Your task to perform on an android device: Open Wikipedia Image 0: 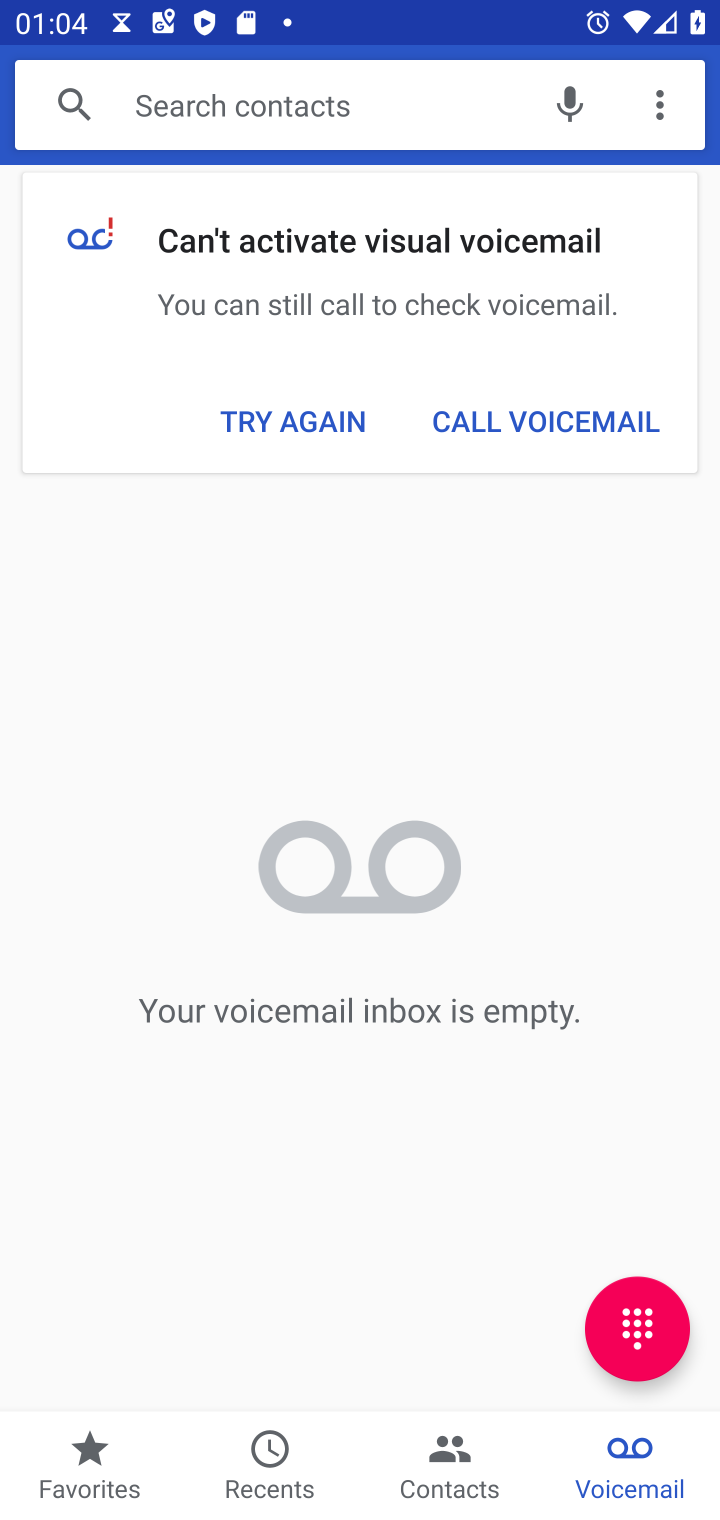
Step 0: press home button
Your task to perform on an android device: Open Wikipedia Image 1: 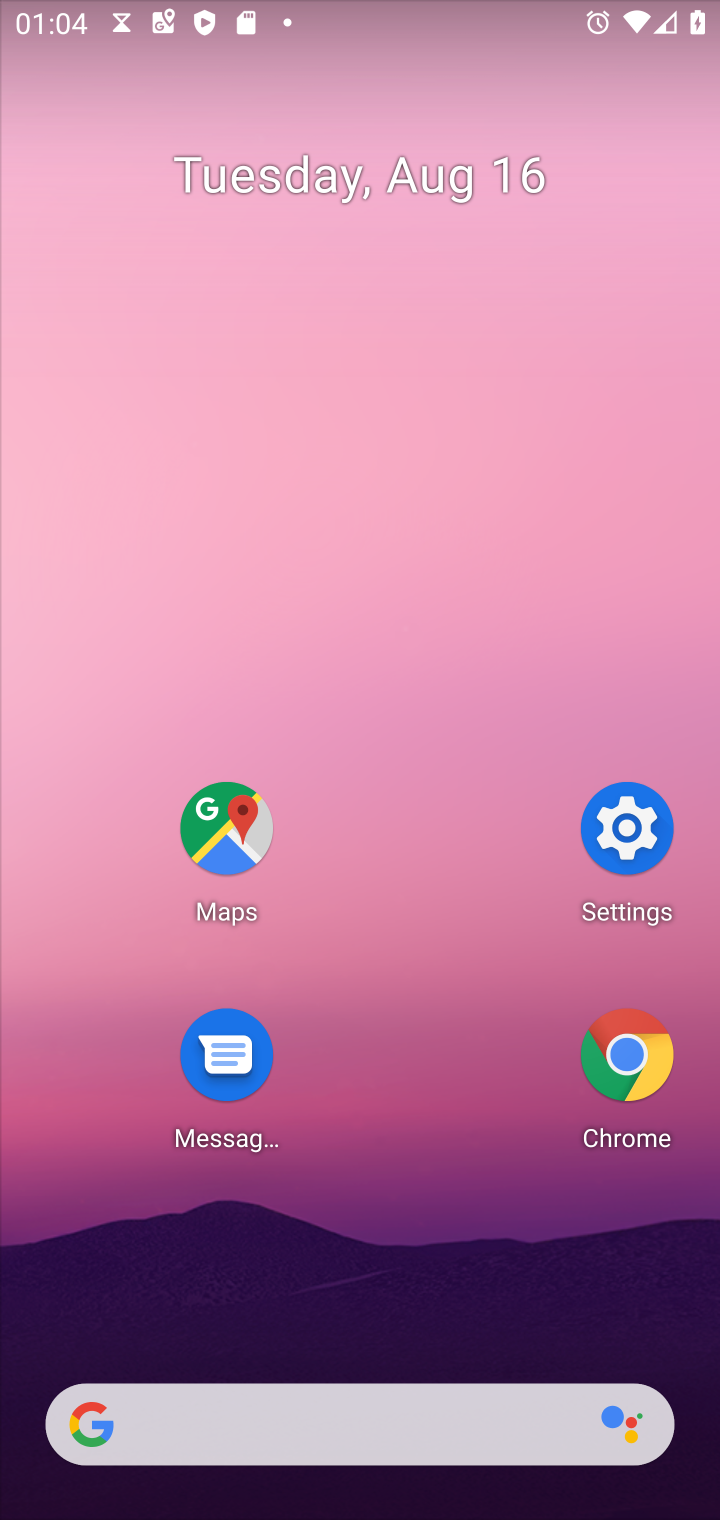
Step 1: click (630, 1074)
Your task to perform on an android device: Open Wikipedia Image 2: 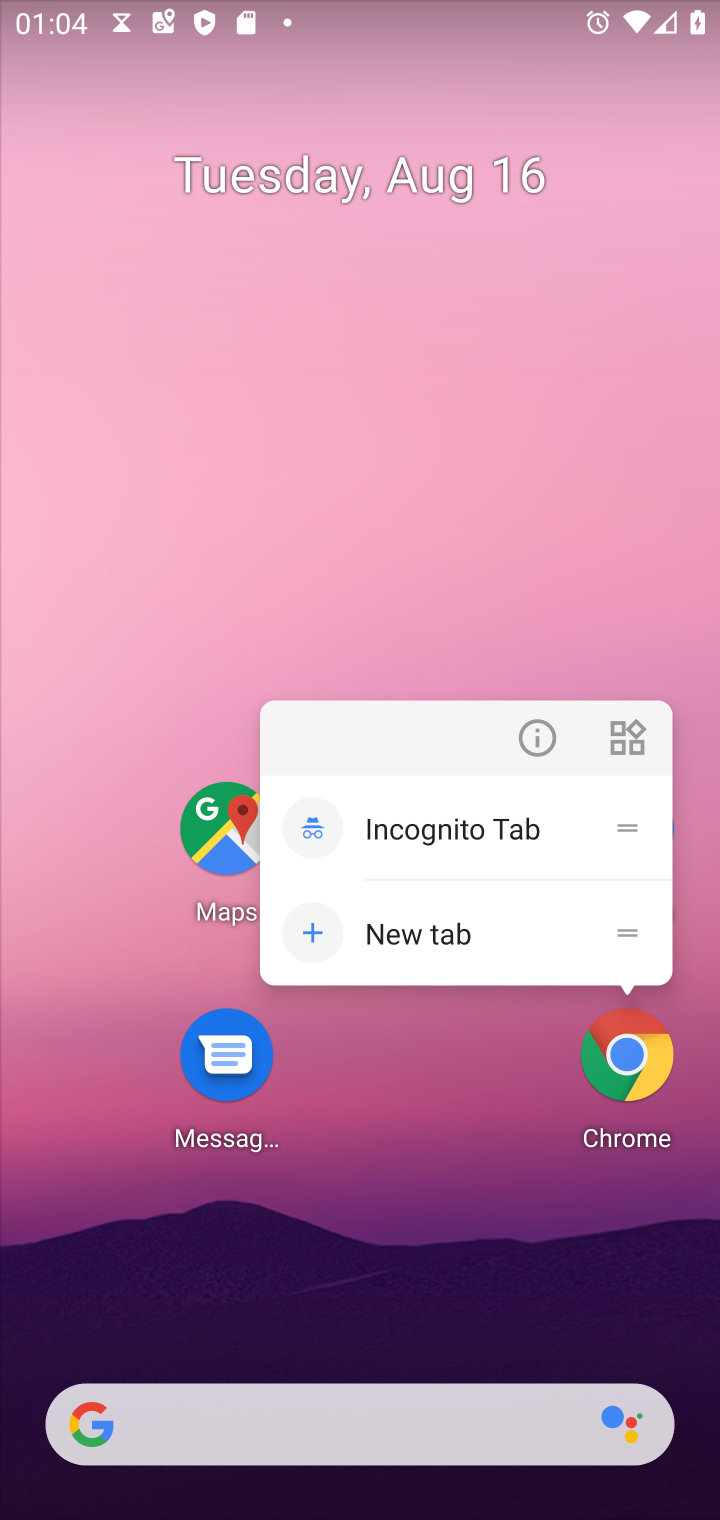
Step 2: click (632, 1063)
Your task to perform on an android device: Open Wikipedia Image 3: 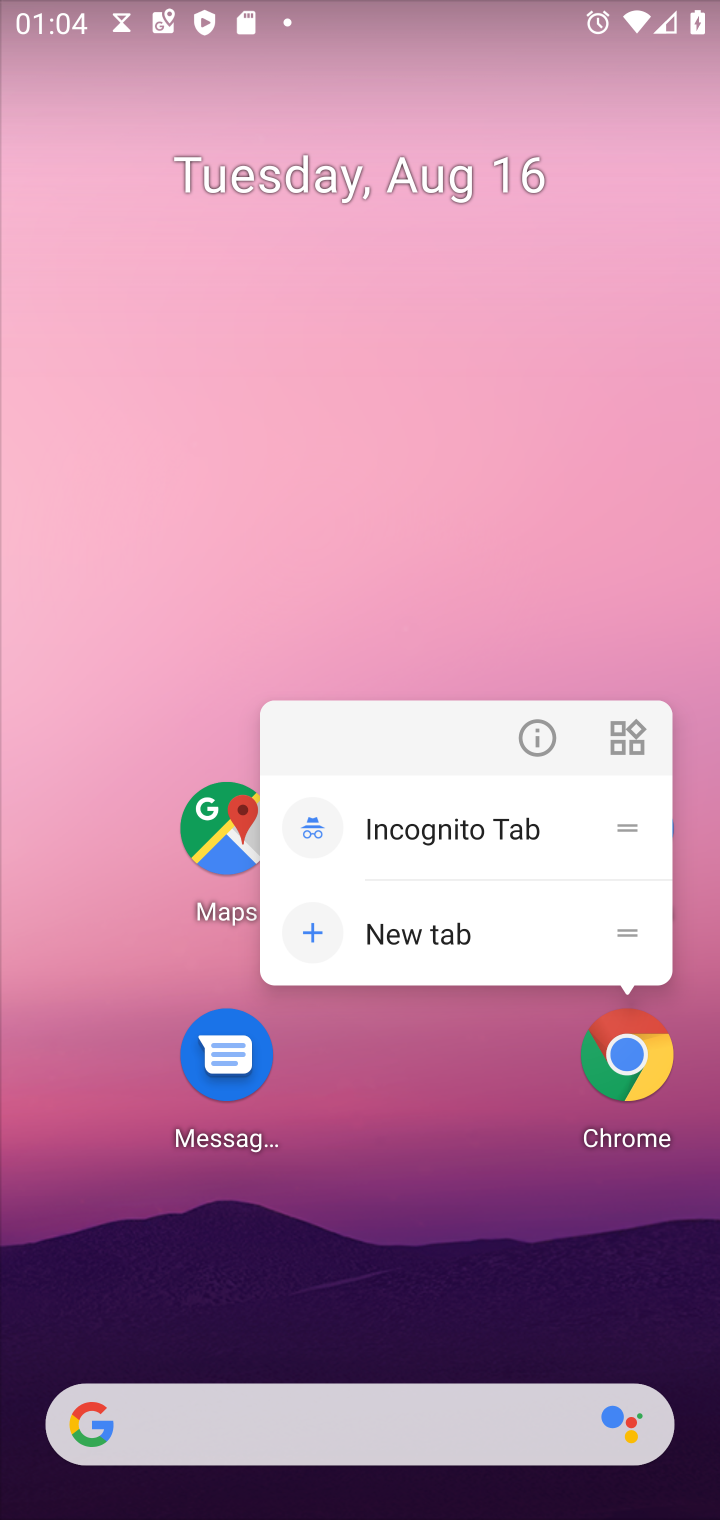
Step 3: click (632, 1067)
Your task to perform on an android device: Open Wikipedia Image 4: 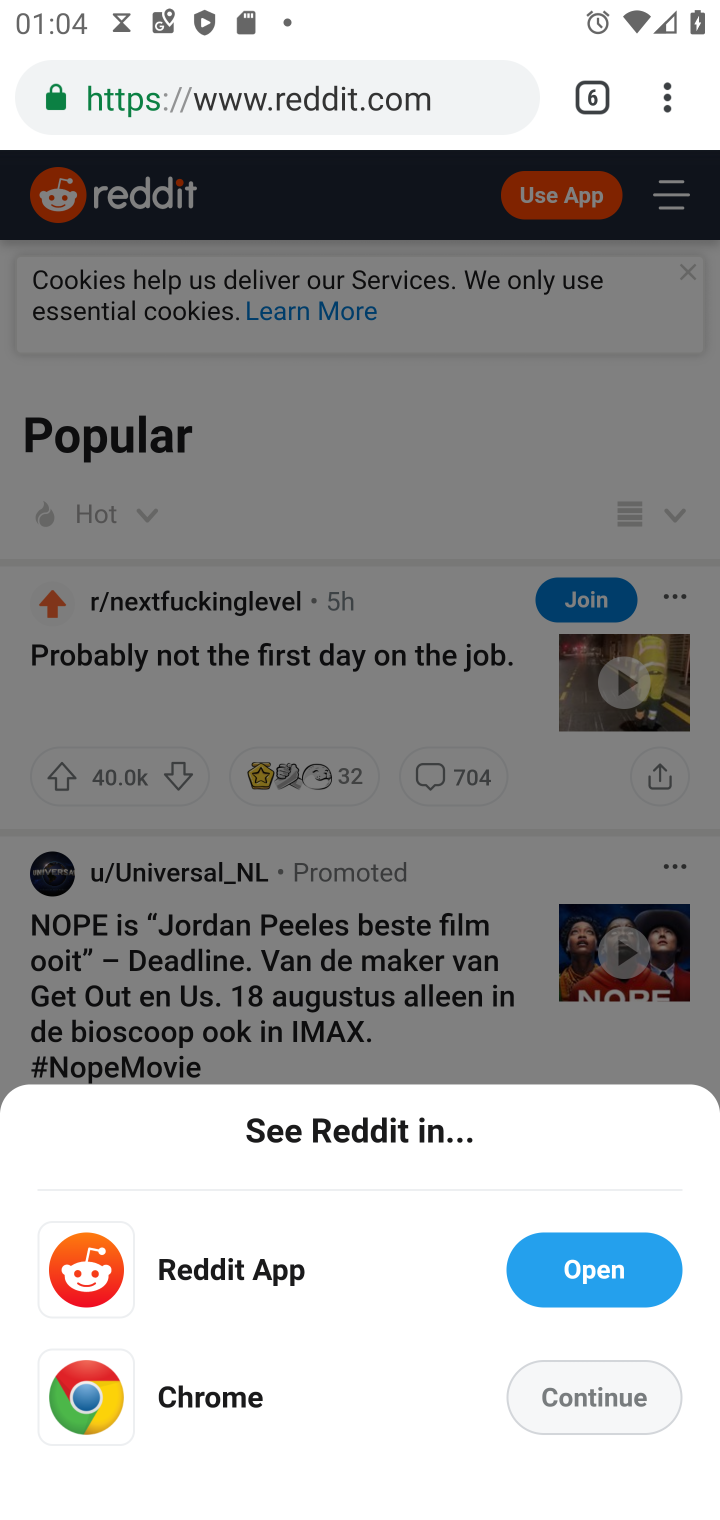
Step 4: drag from (666, 89) to (455, 188)
Your task to perform on an android device: Open Wikipedia Image 5: 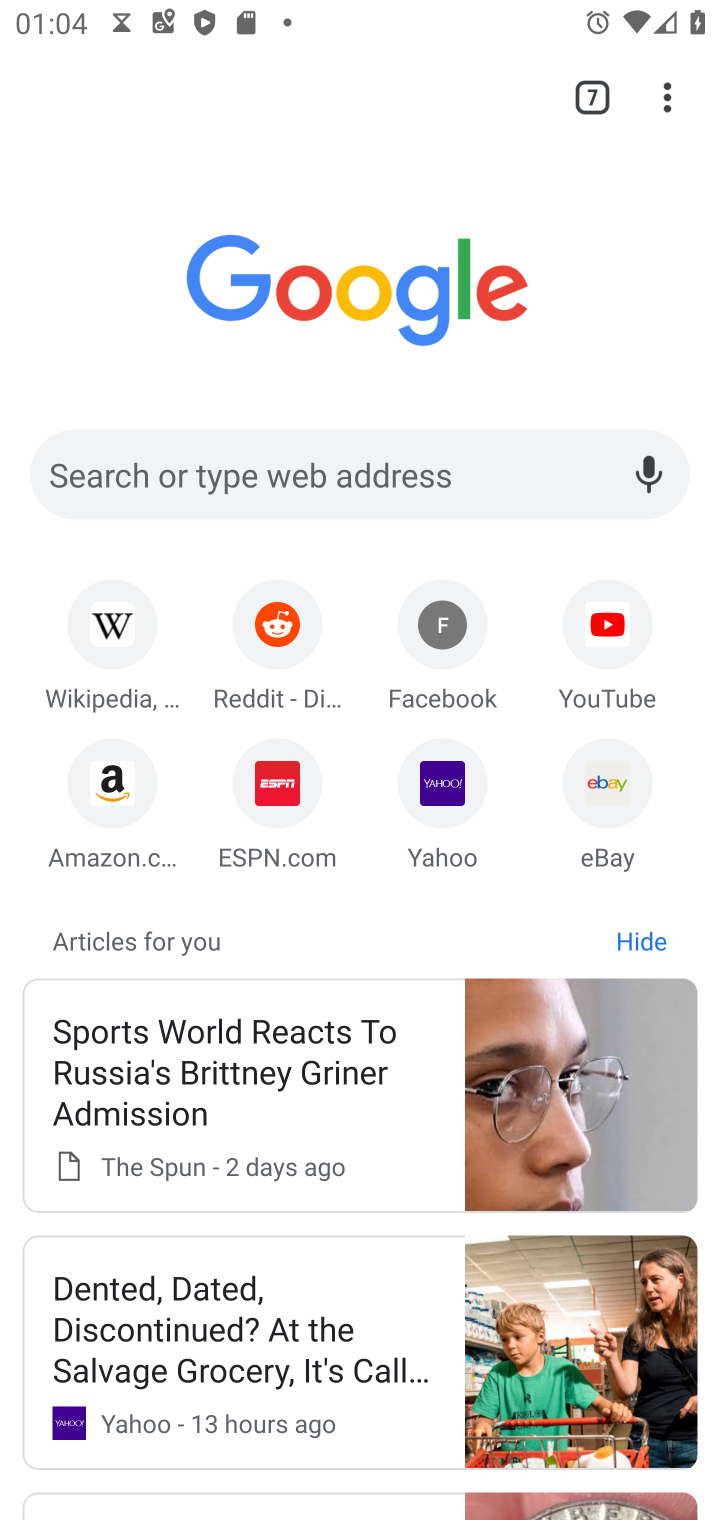
Step 5: click (96, 638)
Your task to perform on an android device: Open Wikipedia Image 6: 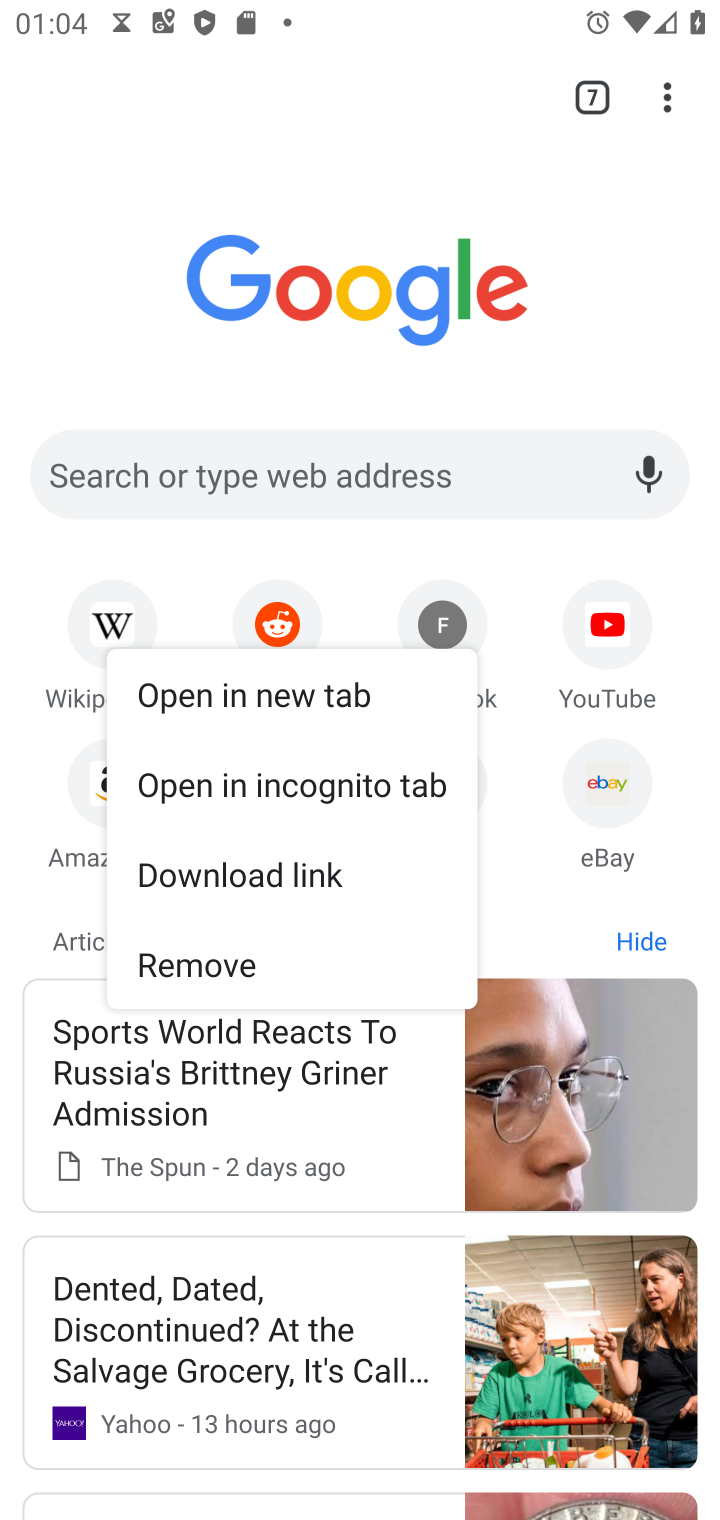
Step 6: click (103, 626)
Your task to perform on an android device: Open Wikipedia Image 7: 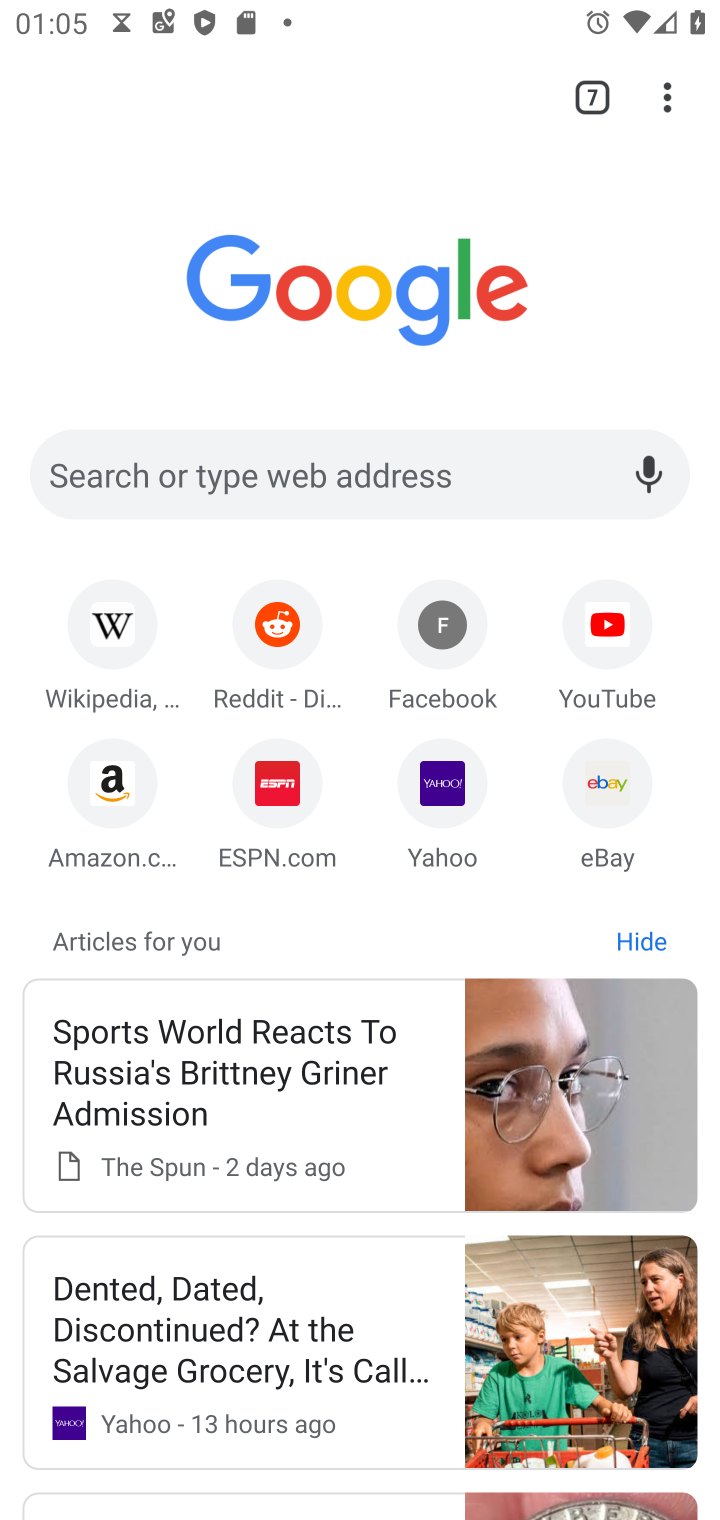
Step 7: click (110, 632)
Your task to perform on an android device: Open Wikipedia Image 8: 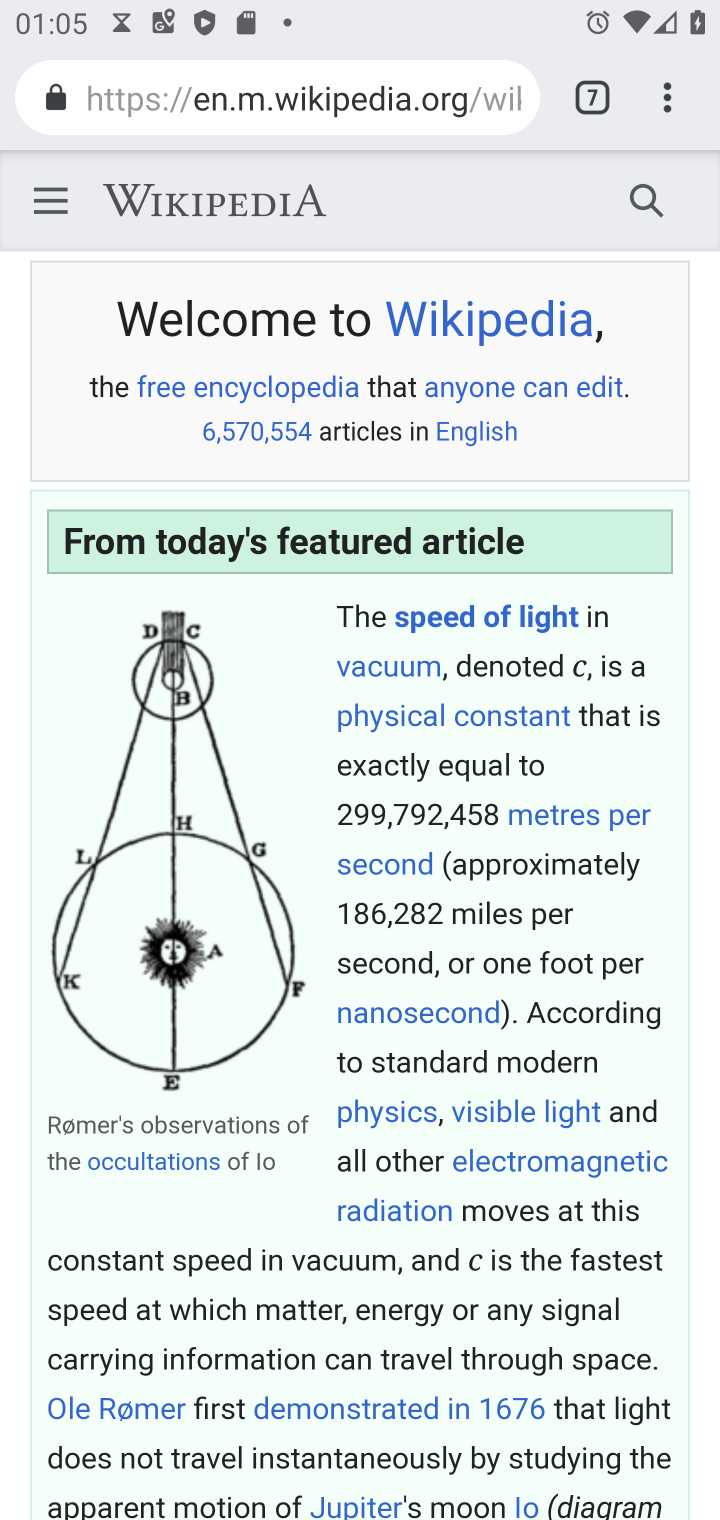
Step 8: task complete